Your task to perform on an android device: Show me popular videos on Youtube Image 0: 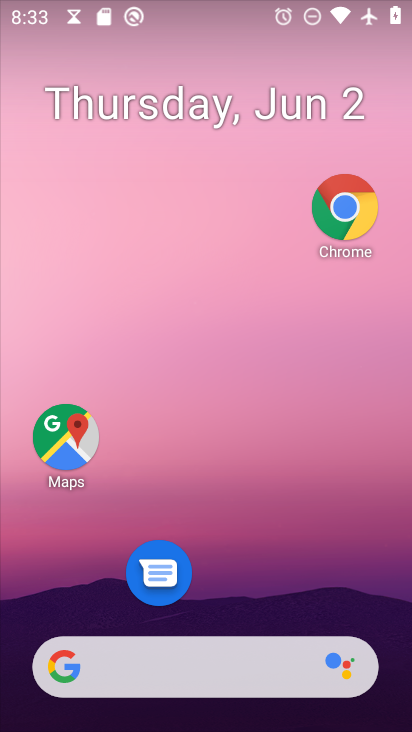
Step 0: drag from (179, 680) to (237, 165)
Your task to perform on an android device: Show me popular videos on Youtube Image 1: 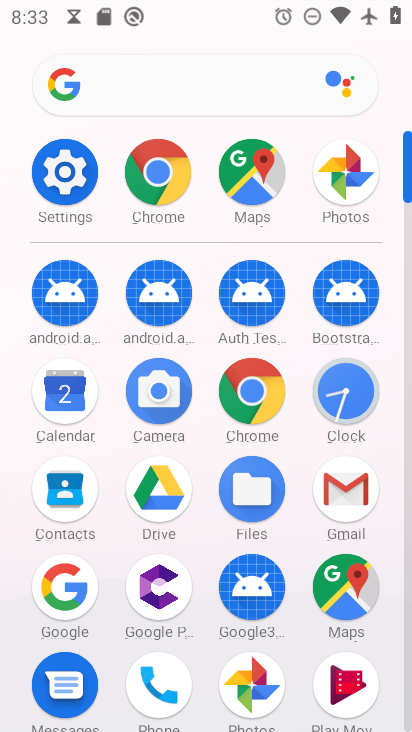
Step 1: drag from (203, 672) to (292, 336)
Your task to perform on an android device: Show me popular videos on Youtube Image 2: 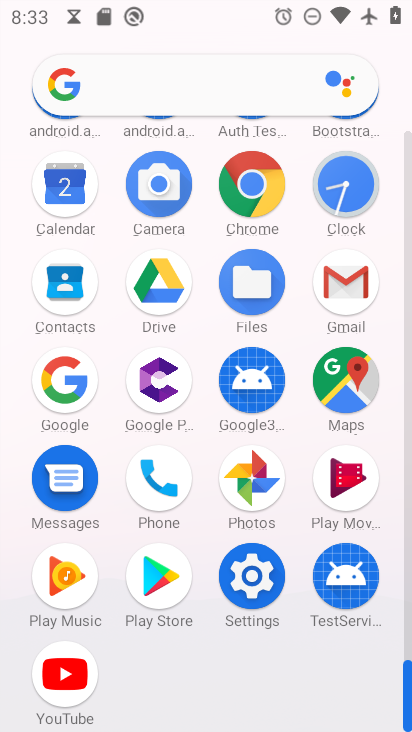
Step 2: click (71, 682)
Your task to perform on an android device: Show me popular videos on Youtube Image 3: 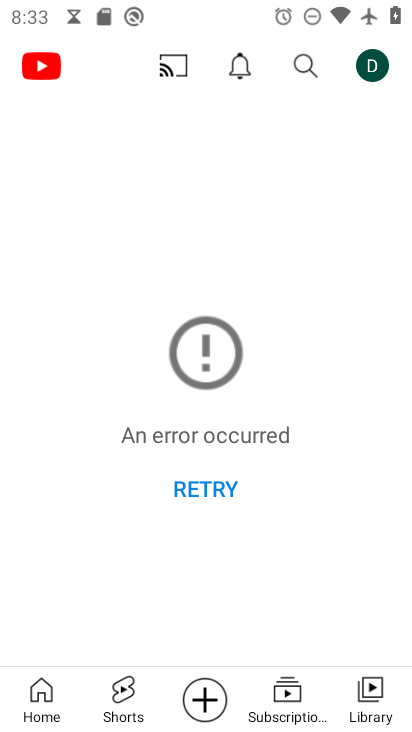
Step 3: click (217, 485)
Your task to perform on an android device: Show me popular videos on Youtube Image 4: 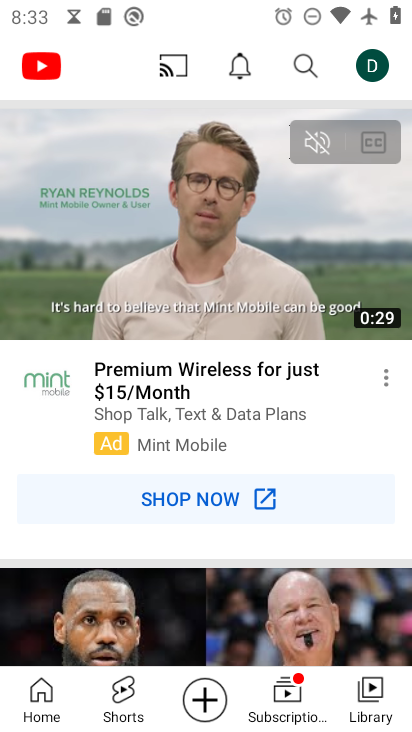
Step 4: task complete